Your task to perform on an android device: Open Google Chrome and open the bookmarks view Image 0: 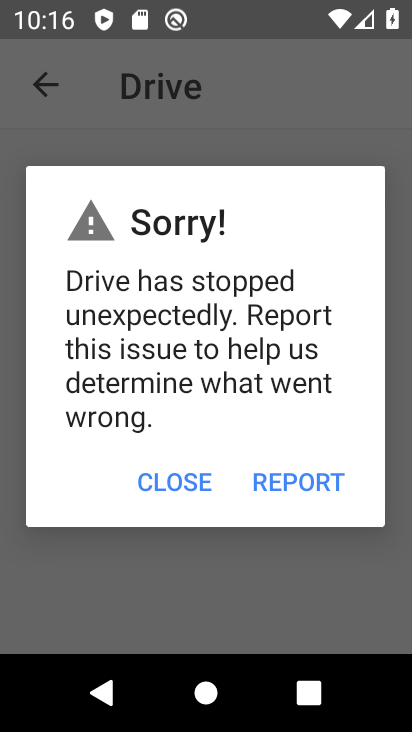
Step 0: press home button
Your task to perform on an android device: Open Google Chrome and open the bookmarks view Image 1: 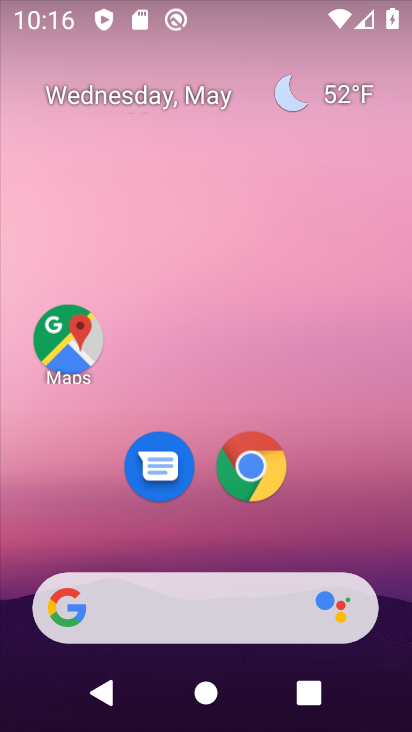
Step 1: click (256, 466)
Your task to perform on an android device: Open Google Chrome and open the bookmarks view Image 2: 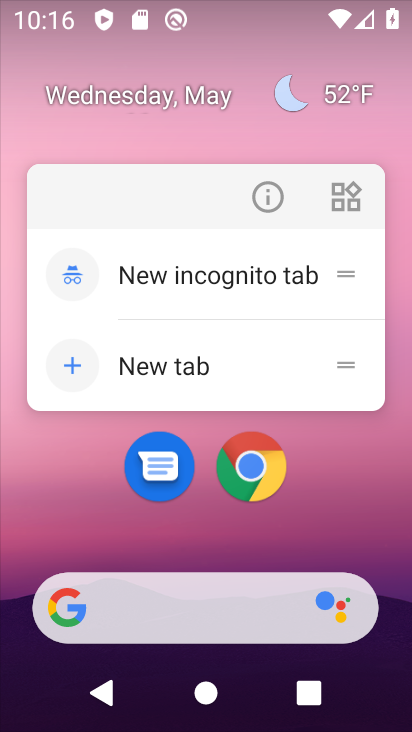
Step 2: click (255, 466)
Your task to perform on an android device: Open Google Chrome and open the bookmarks view Image 3: 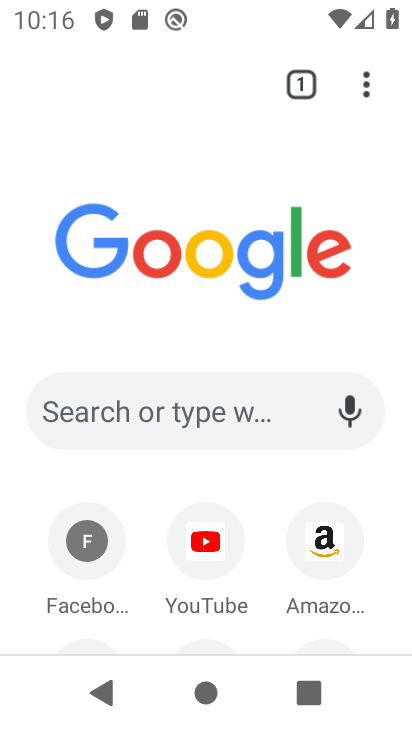
Step 3: click (358, 81)
Your task to perform on an android device: Open Google Chrome and open the bookmarks view Image 4: 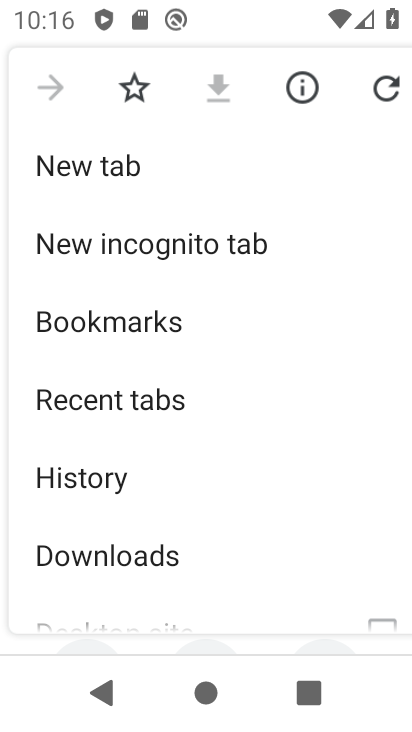
Step 4: click (145, 343)
Your task to perform on an android device: Open Google Chrome and open the bookmarks view Image 5: 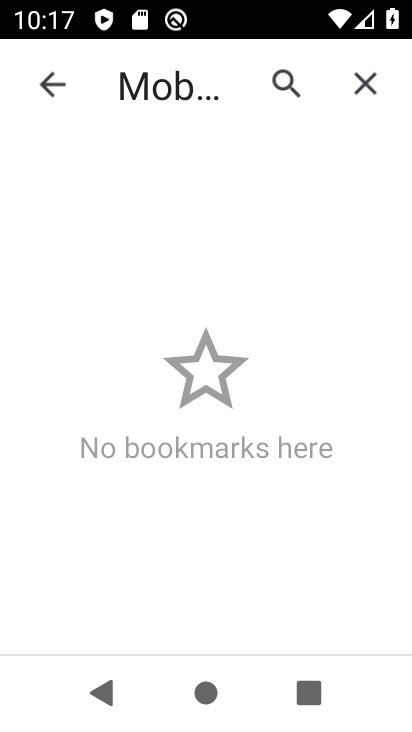
Step 5: task complete